Your task to perform on an android device: uninstall "McDonald's" Image 0: 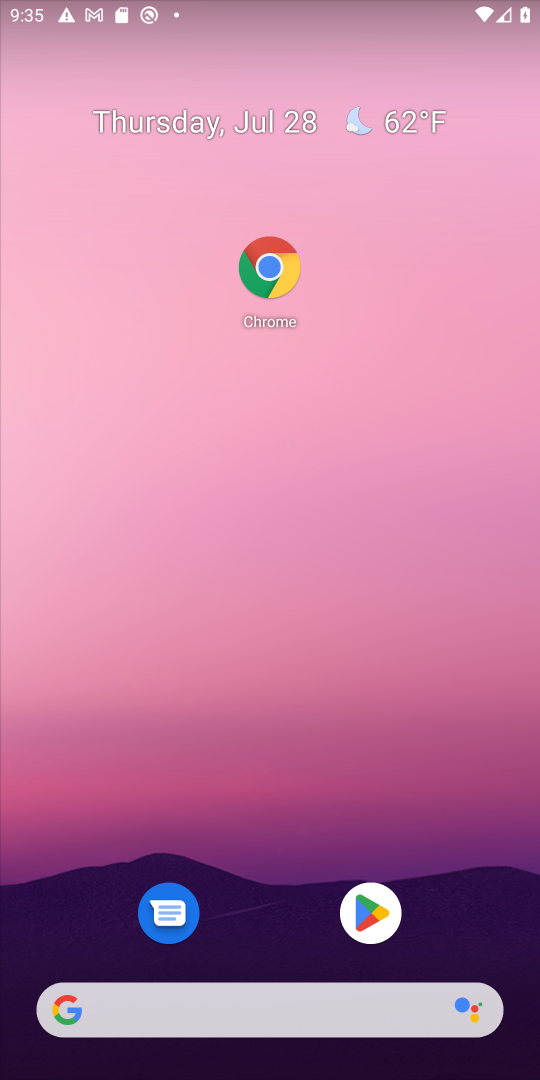
Step 0: click (380, 925)
Your task to perform on an android device: uninstall "McDonald's" Image 1: 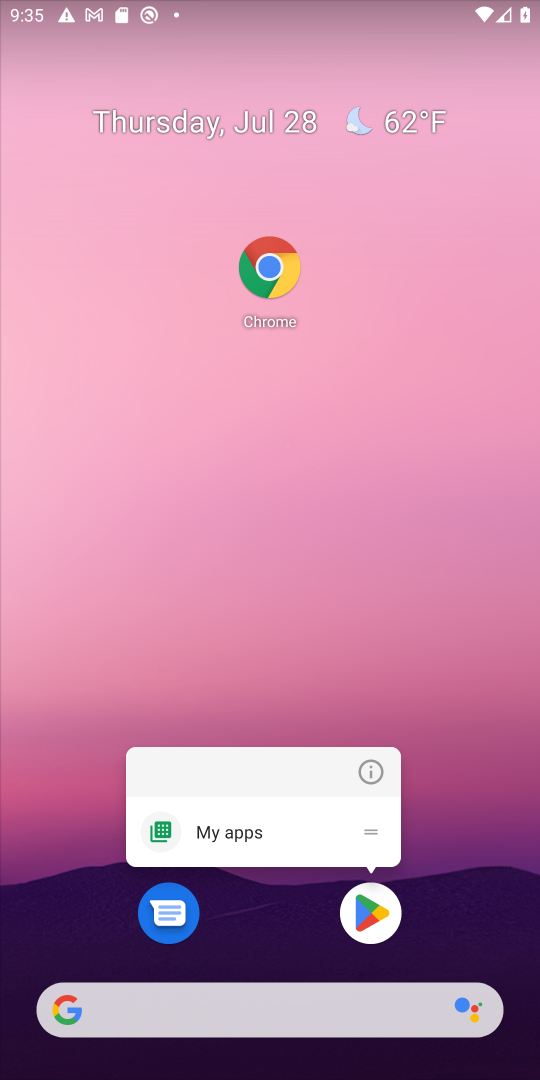
Step 1: drag from (374, 1033) to (424, 258)
Your task to perform on an android device: uninstall "McDonald's" Image 2: 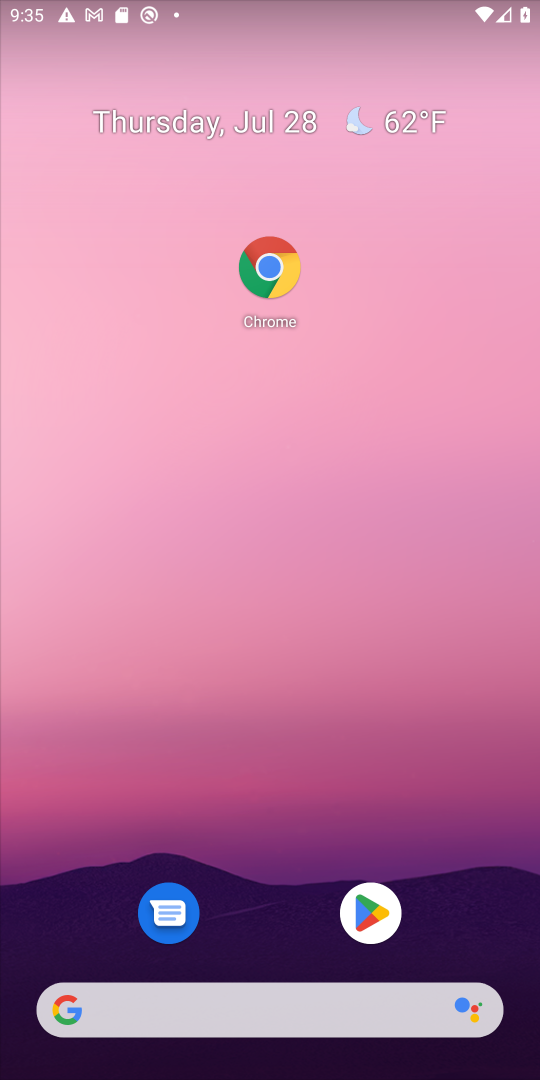
Step 2: drag from (428, 1021) to (431, 256)
Your task to perform on an android device: uninstall "McDonald's" Image 3: 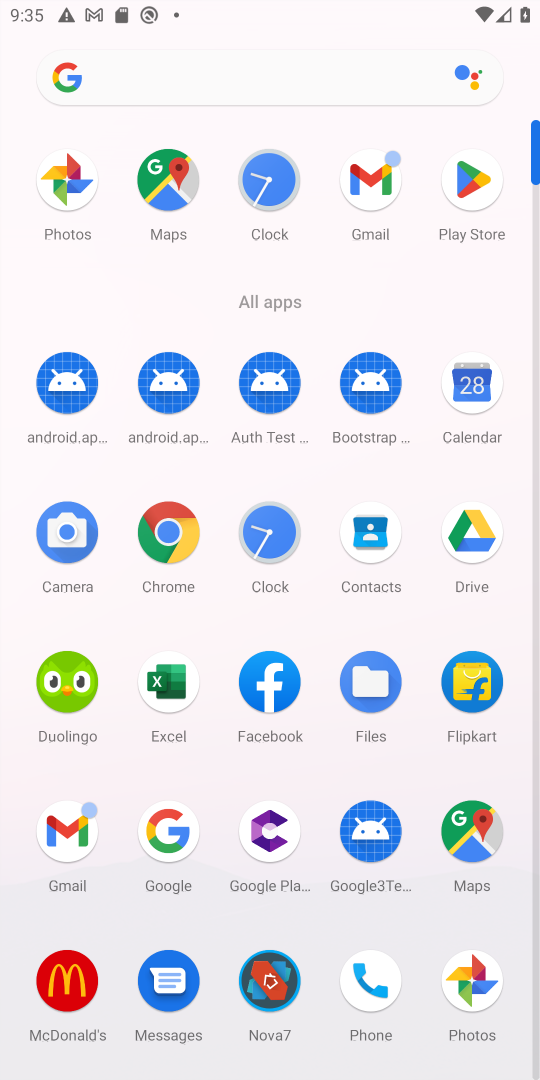
Step 3: click (455, 196)
Your task to perform on an android device: uninstall "McDonald's" Image 4: 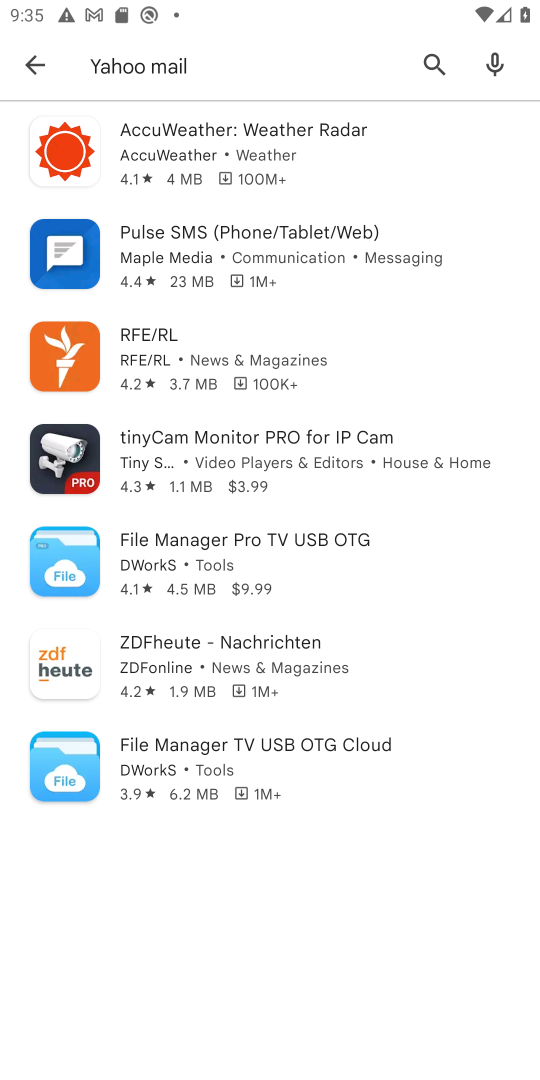
Step 4: click (417, 71)
Your task to perform on an android device: uninstall "McDonald's" Image 5: 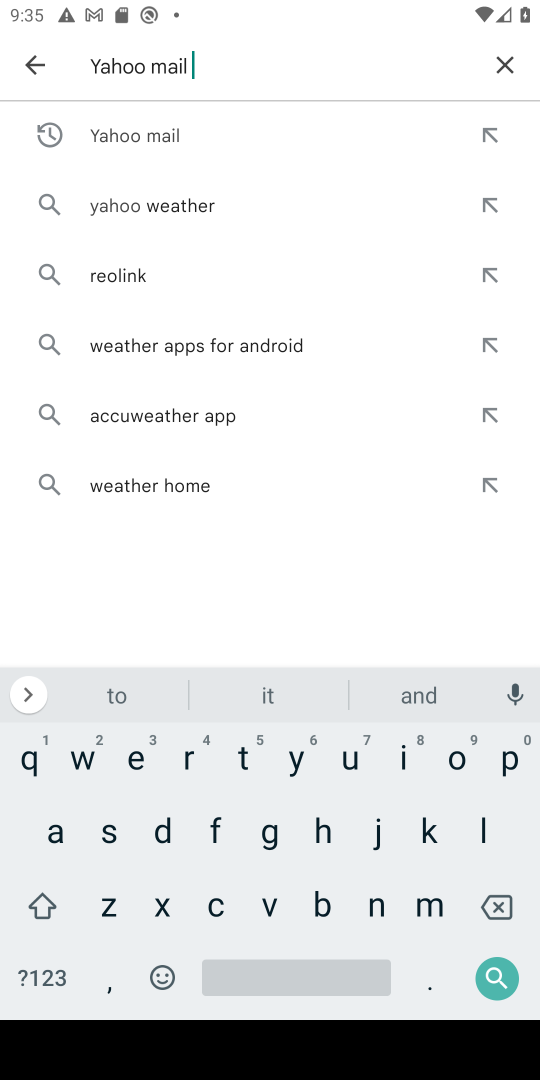
Step 5: click (511, 65)
Your task to perform on an android device: uninstall "McDonald's" Image 6: 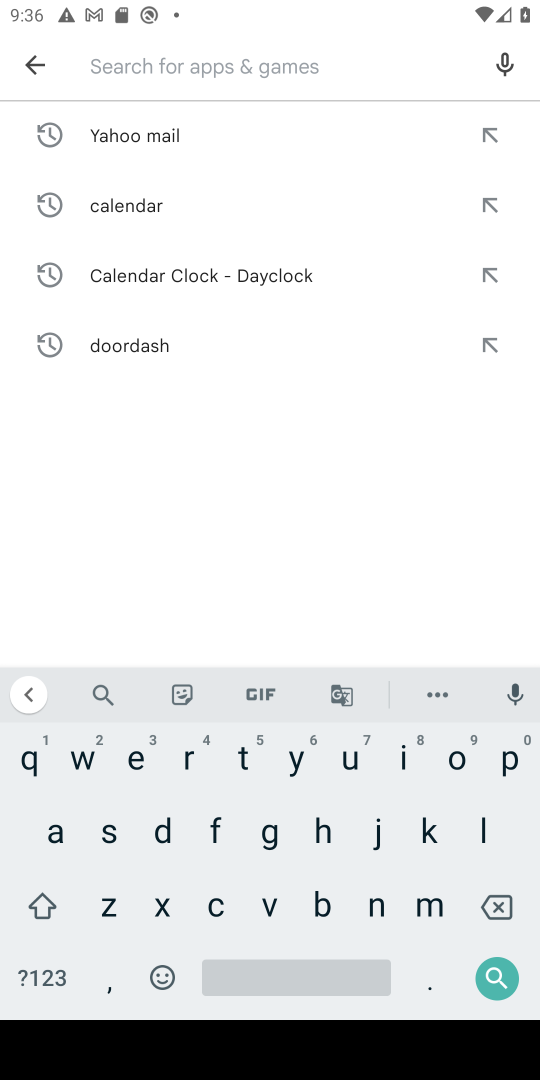
Step 6: click (438, 909)
Your task to perform on an android device: uninstall "McDonald's" Image 7: 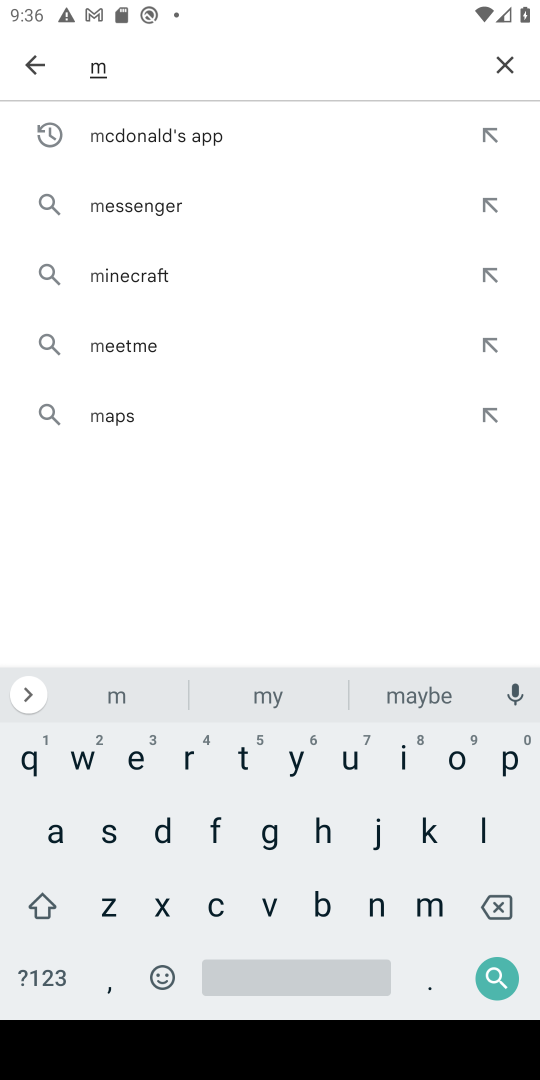
Step 7: click (202, 142)
Your task to perform on an android device: uninstall "McDonald's" Image 8: 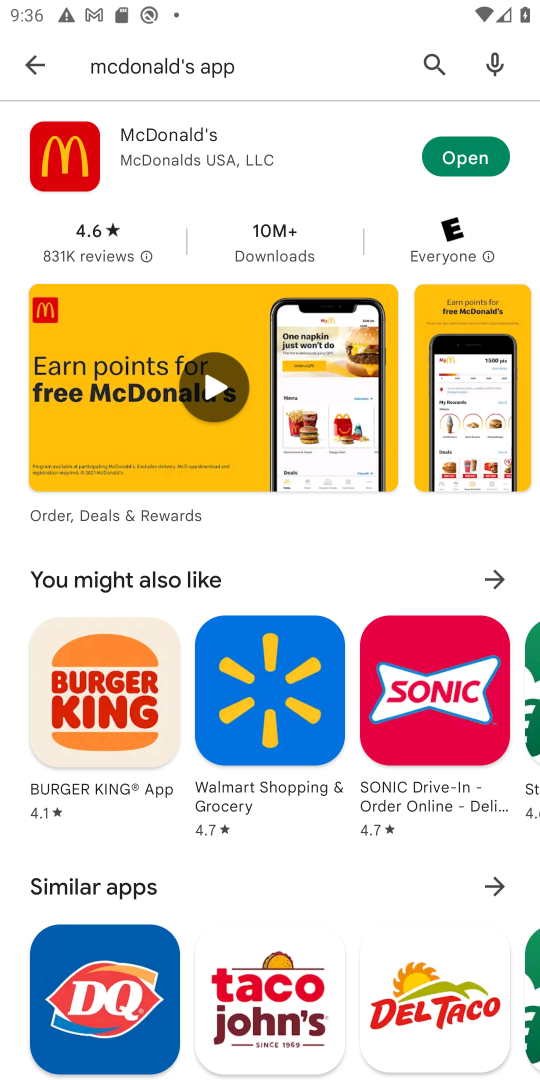
Step 8: click (60, 167)
Your task to perform on an android device: uninstall "McDonald's" Image 9: 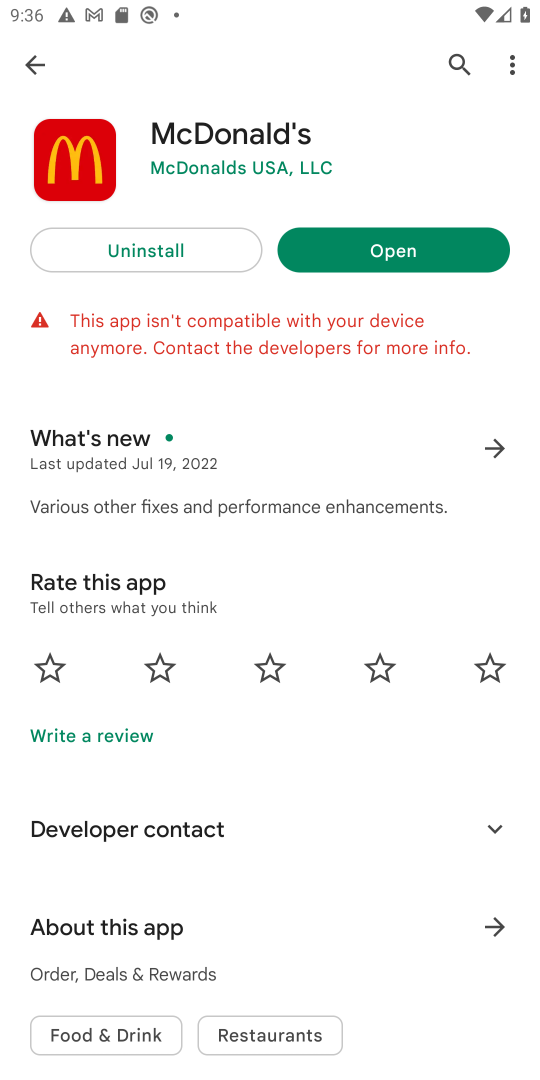
Step 9: click (123, 247)
Your task to perform on an android device: uninstall "McDonald's" Image 10: 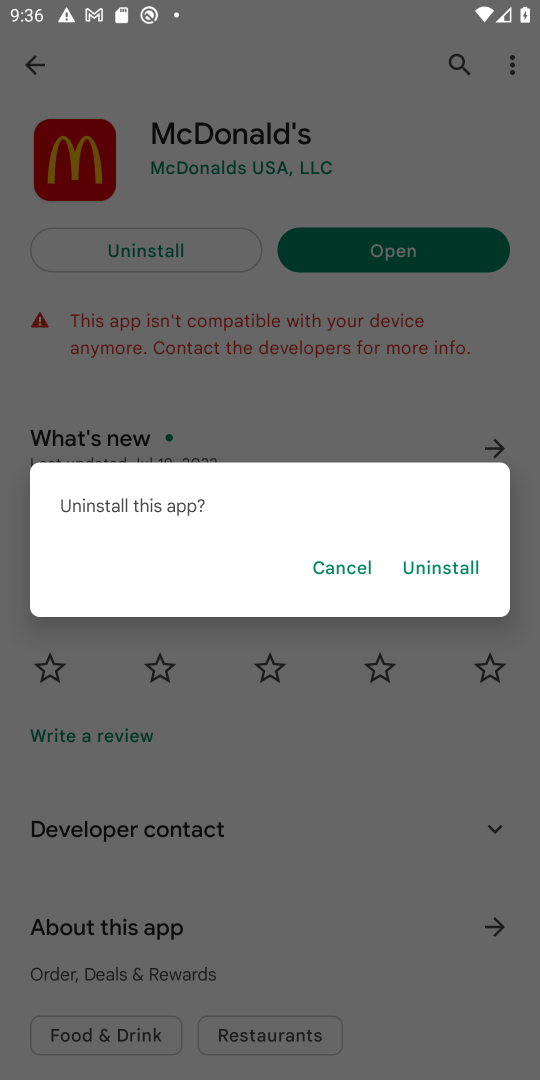
Step 10: click (440, 569)
Your task to perform on an android device: uninstall "McDonald's" Image 11: 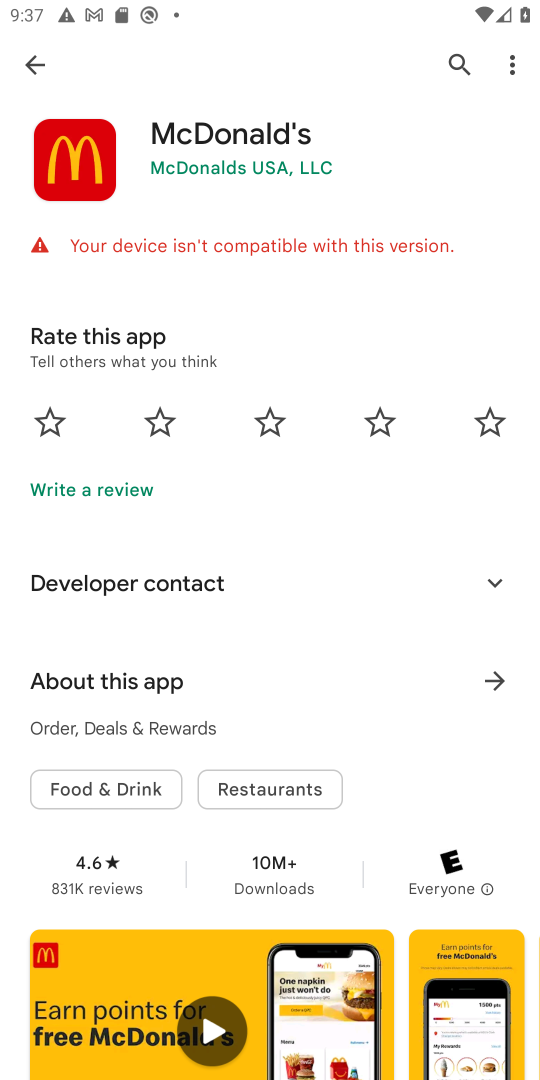
Step 11: task complete